Your task to perform on an android device: Open accessibility settings Image 0: 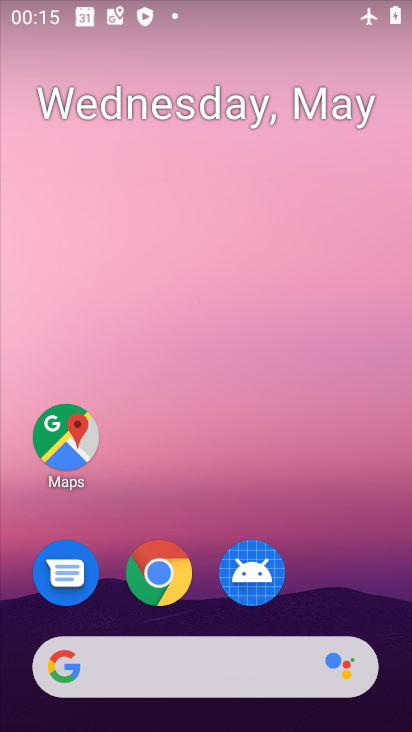
Step 0: drag from (327, 559) to (242, 91)
Your task to perform on an android device: Open accessibility settings Image 1: 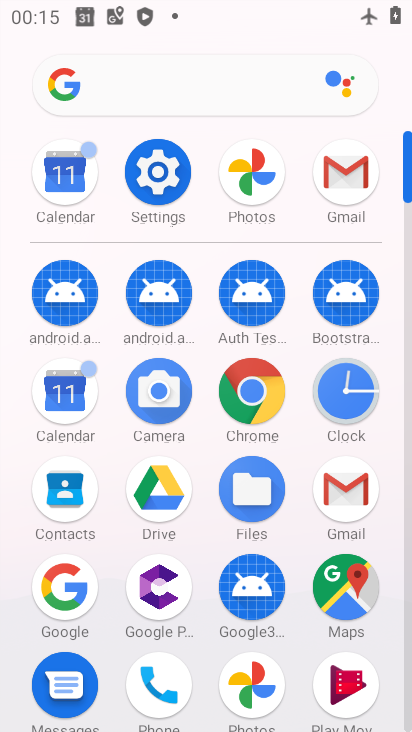
Step 1: click (154, 162)
Your task to perform on an android device: Open accessibility settings Image 2: 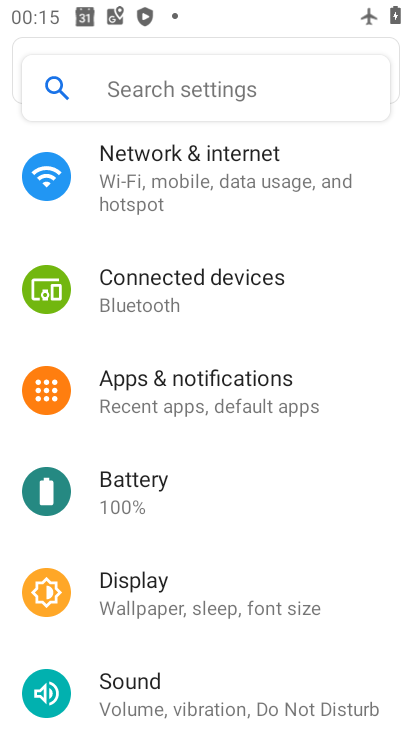
Step 2: drag from (217, 526) to (172, 198)
Your task to perform on an android device: Open accessibility settings Image 3: 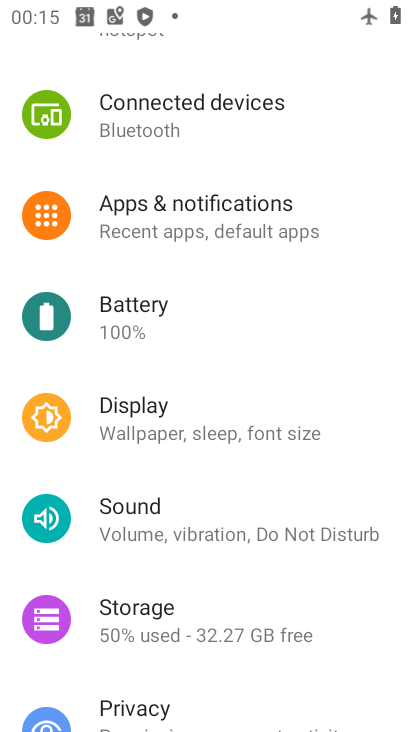
Step 3: drag from (189, 550) to (135, 186)
Your task to perform on an android device: Open accessibility settings Image 4: 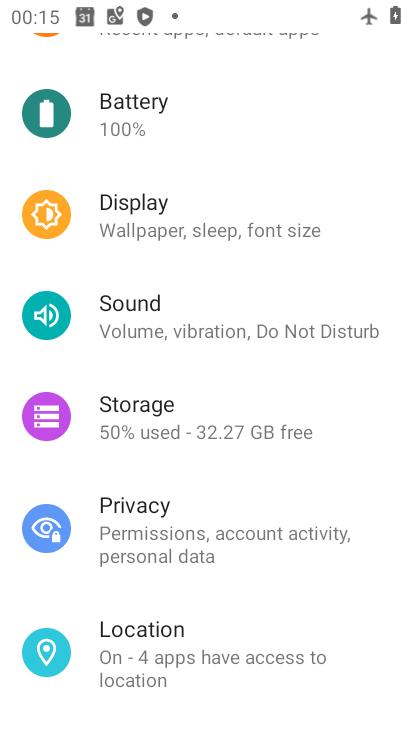
Step 4: drag from (180, 475) to (157, 174)
Your task to perform on an android device: Open accessibility settings Image 5: 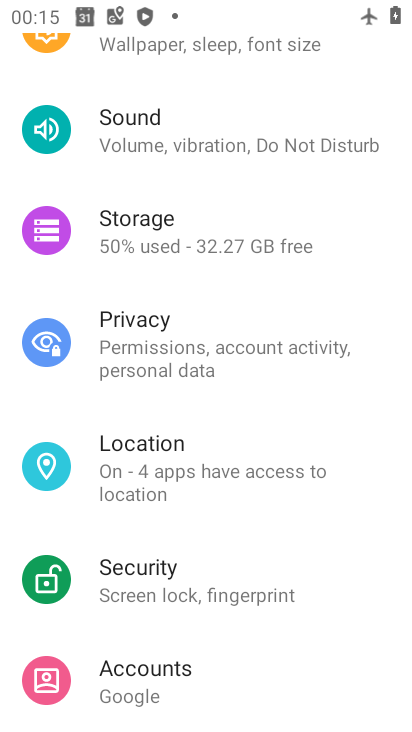
Step 5: drag from (195, 502) to (182, 204)
Your task to perform on an android device: Open accessibility settings Image 6: 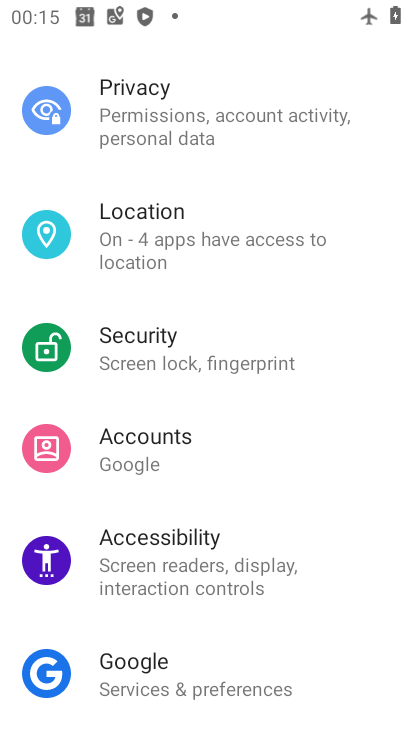
Step 6: click (176, 537)
Your task to perform on an android device: Open accessibility settings Image 7: 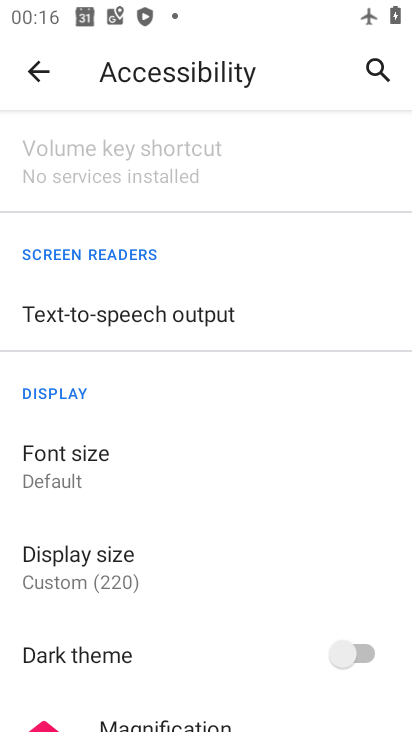
Step 7: task complete